Your task to perform on an android device: Go to Amazon Image 0: 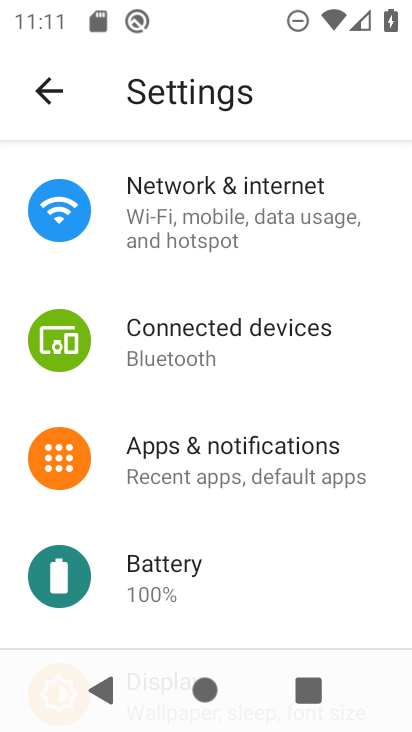
Step 0: press home button
Your task to perform on an android device: Go to Amazon Image 1: 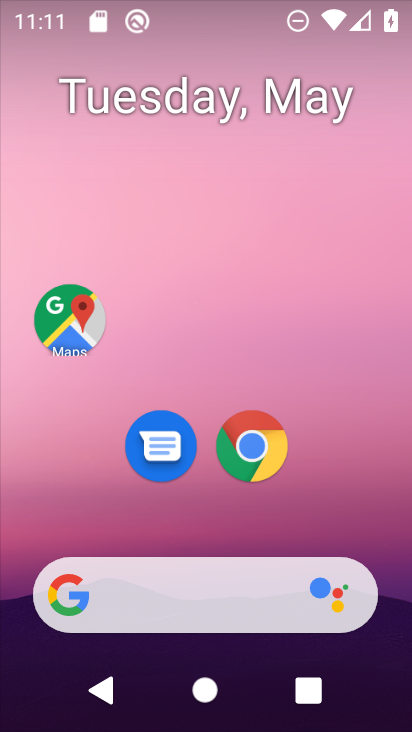
Step 1: click (269, 462)
Your task to perform on an android device: Go to Amazon Image 2: 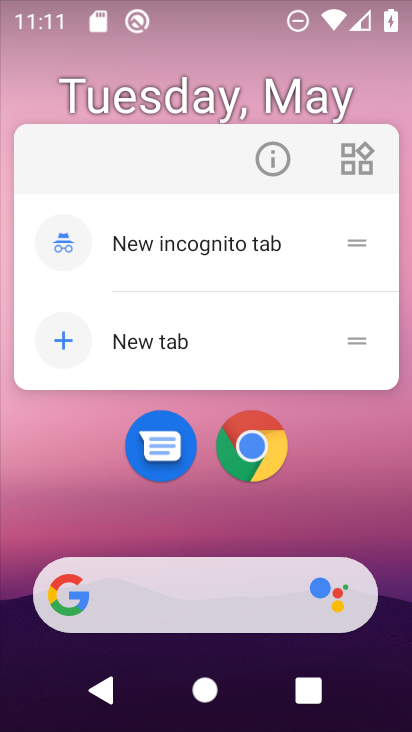
Step 2: click (269, 462)
Your task to perform on an android device: Go to Amazon Image 3: 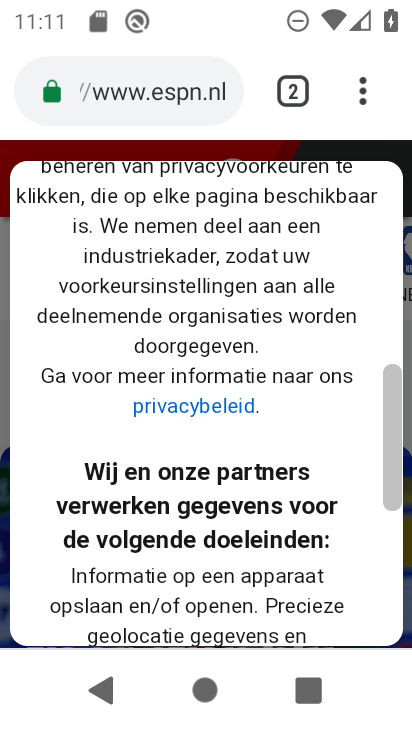
Step 3: click (365, 88)
Your task to perform on an android device: Go to Amazon Image 4: 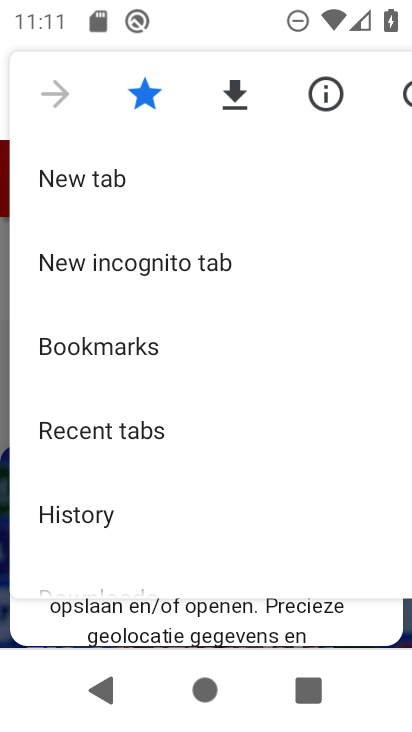
Step 4: click (396, 94)
Your task to perform on an android device: Go to Amazon Image 5: 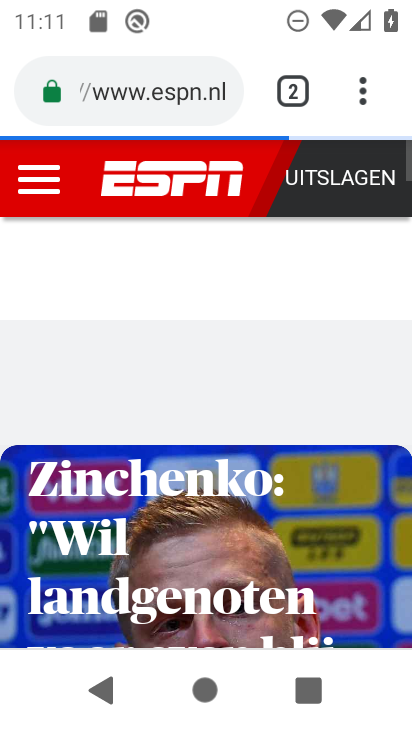
Step 5: click (145, 97)
Your task to perform on an android device: Go to Amazon Image 6: 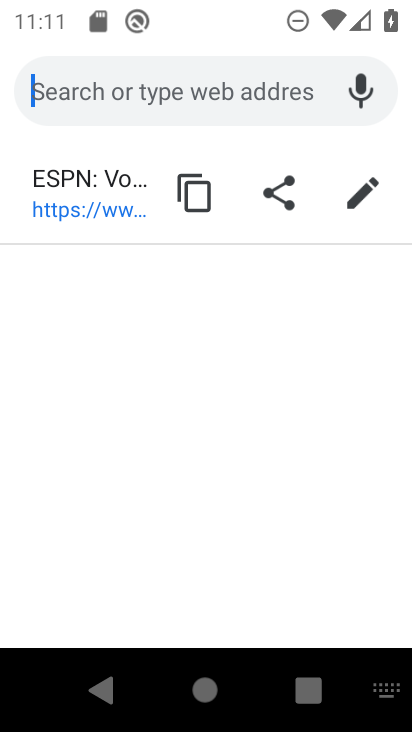
Step 6: type "Amazon"
Your task to perform on an android device: Go to Amazon Image 7: 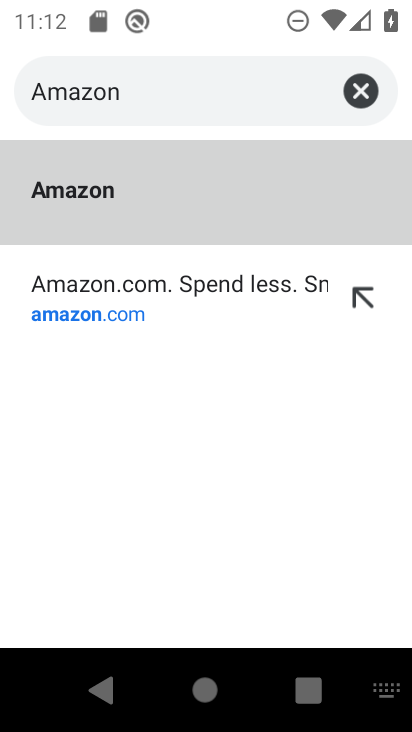
Step 7: click (125, 318)
Your task to perform on an android device: Go to Amazon Image 8: 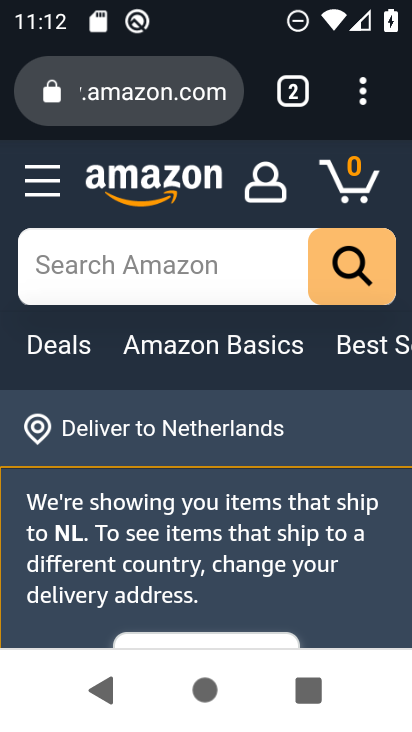
Step 8: task complete